Your task to perform on an android device: Search for Mexican restaurants on Maps Image 0: 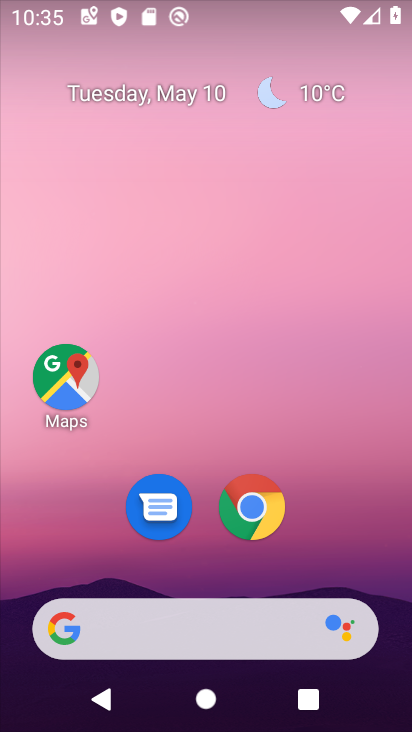
Step 0: click (65, 391)
Your task to perform on an android device: Search for Mexican restaurants on Maps Image 1: 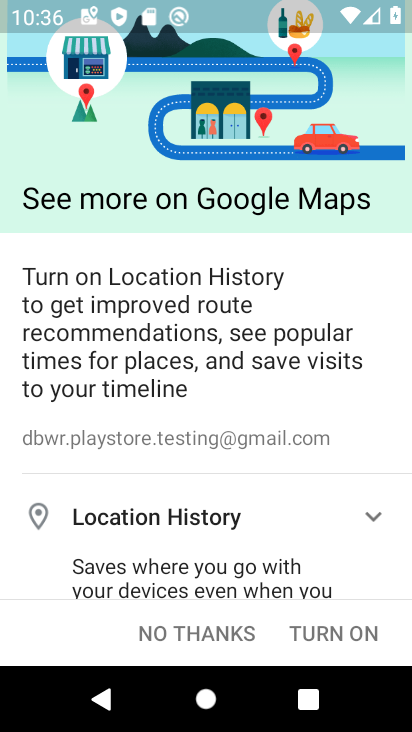
Step 1: task complete